Your task to perform on an android device: change the clock display to digital Image 0: 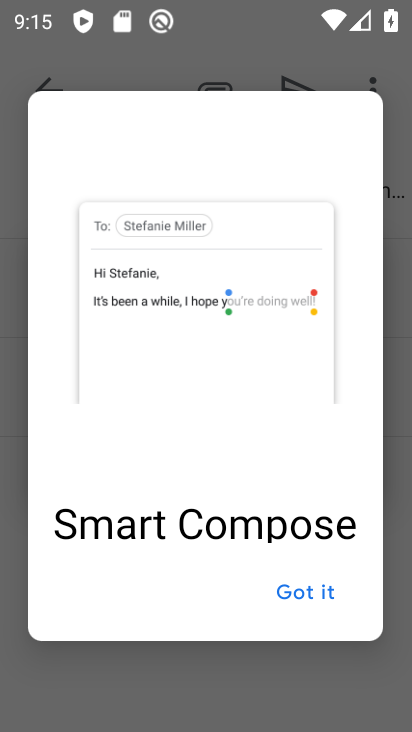
Step 0: press home button
Your task to perform on an android device: change the clock display to digital Image 1: 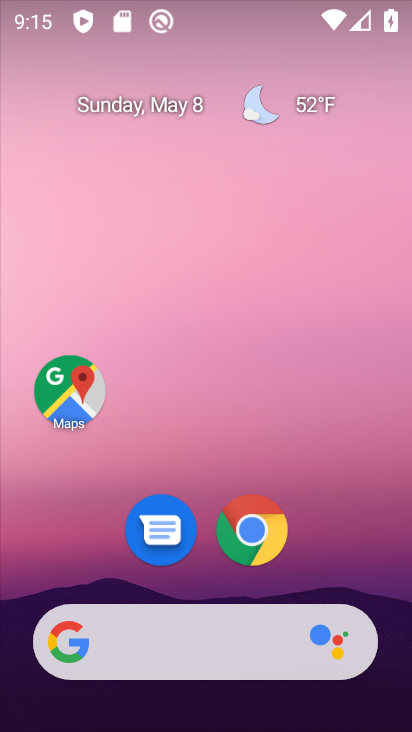
Step 1: drag from (180, 602) to (237, 226)
Your task to perform on an android device: change the clock display to digital Image 2: 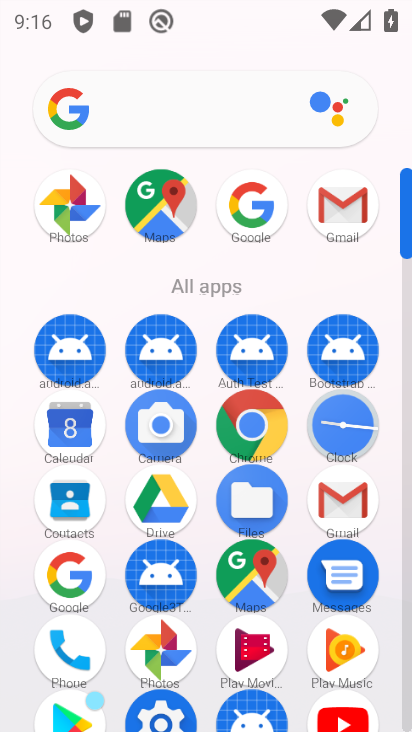
Step 2: click (353, 449)
Your task to perform on an android device: change the clock display to digital Image 3: 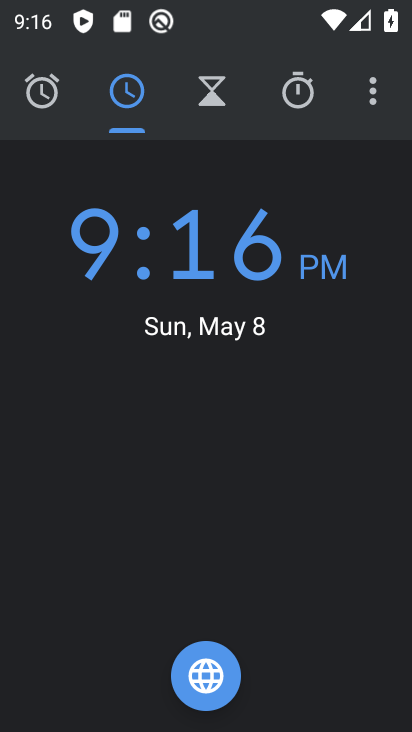
Step 3: click (372, 101)
Your task to perform on an android device: change the clock display to digital Image 4: 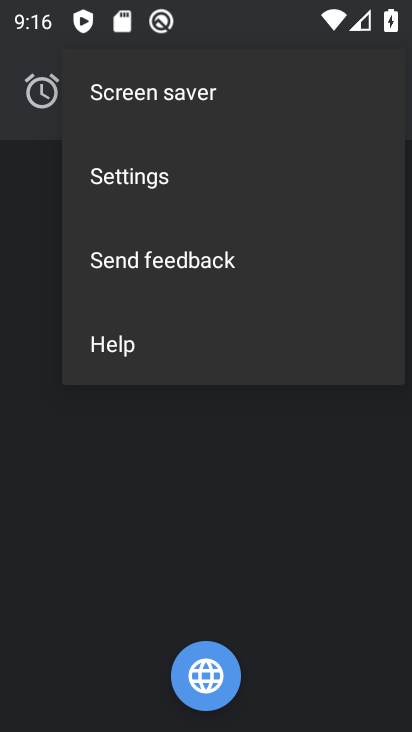
Step 4: click (152, 173)
Your task to perform on an android device: change the clock display to digital Image 5: 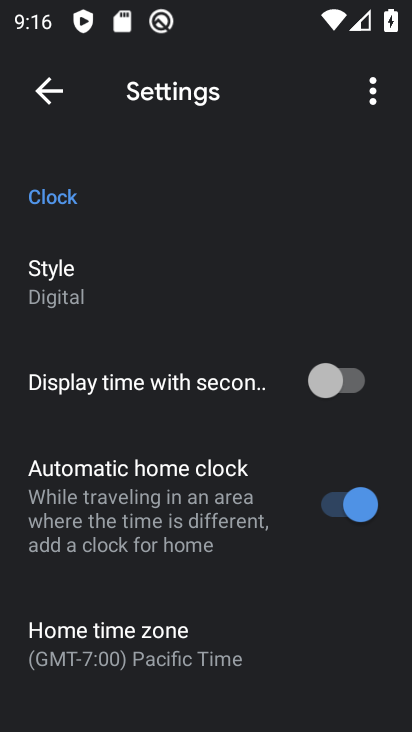
Step 5: click (58, 292)
Your task to perform on an android device: change the clock display to digital Image 6: 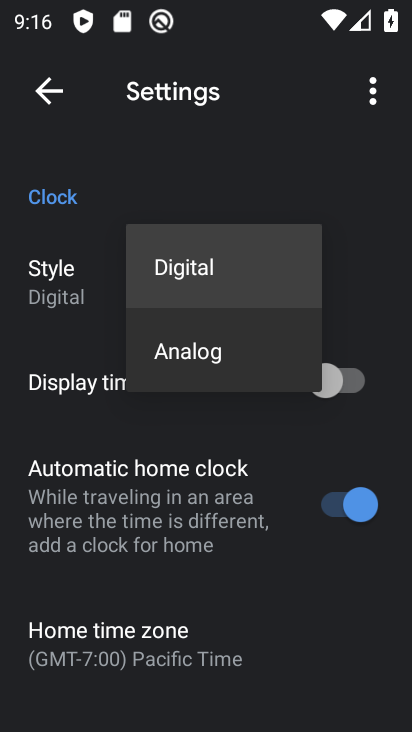
Step 6: click (222, 276)
Your task to perform on an android device: change the clock display to digital Image 7: 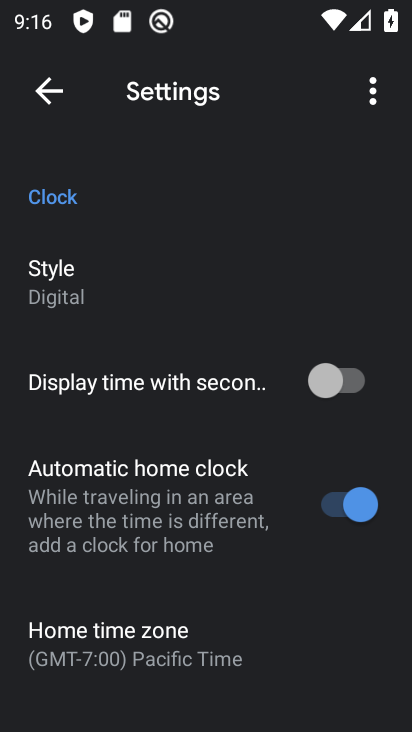
Step 7: task complete